Your task to perform on an android device: open a bookmark in the chrome app Image 0: 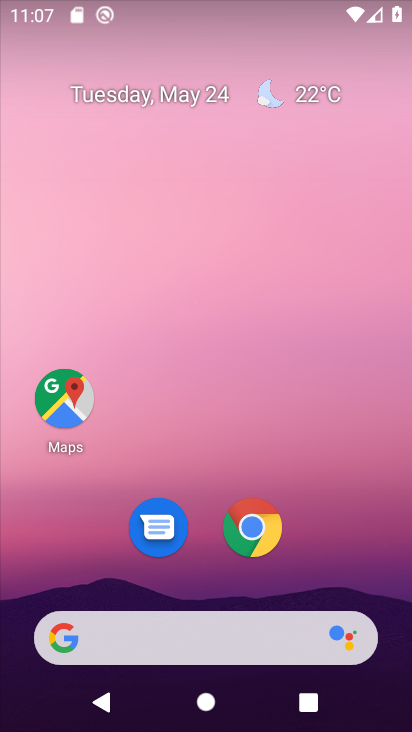
Step 0: press home button
Your task to perform on an android device: open a bookmark in the chrome app Image 1: 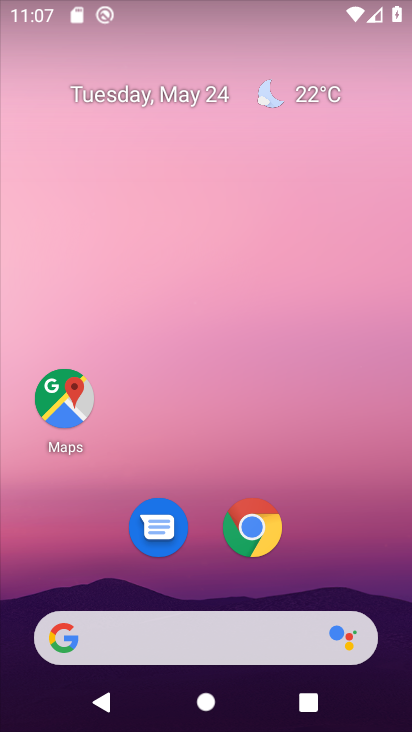
Step 1: click (247, 528)
Your task to perform on an android device: open a bookmark in the chrome app Image 2: 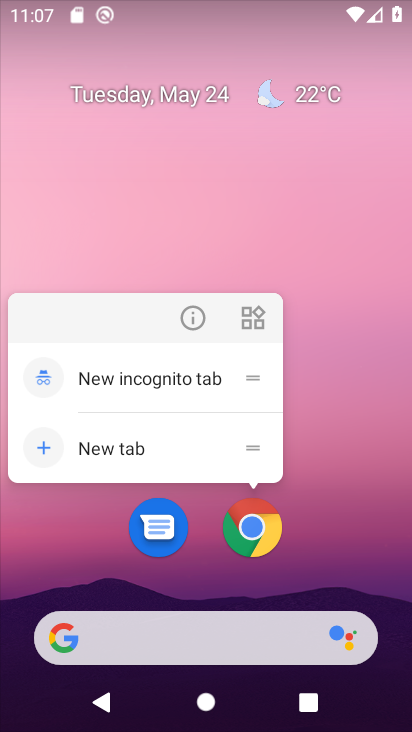
Step 2: click (266, 534)
Your task to perform on an android device: open a bookmark in the chrome app Image 3: 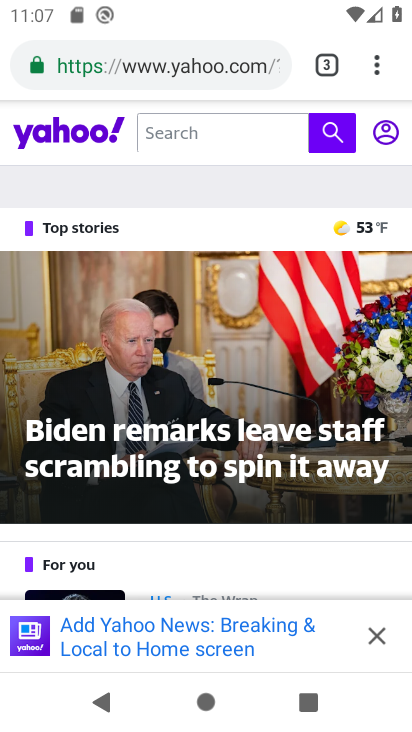
Step 3: task complete